Your task to perform on an android device: Toggle the flashlight Image 0: 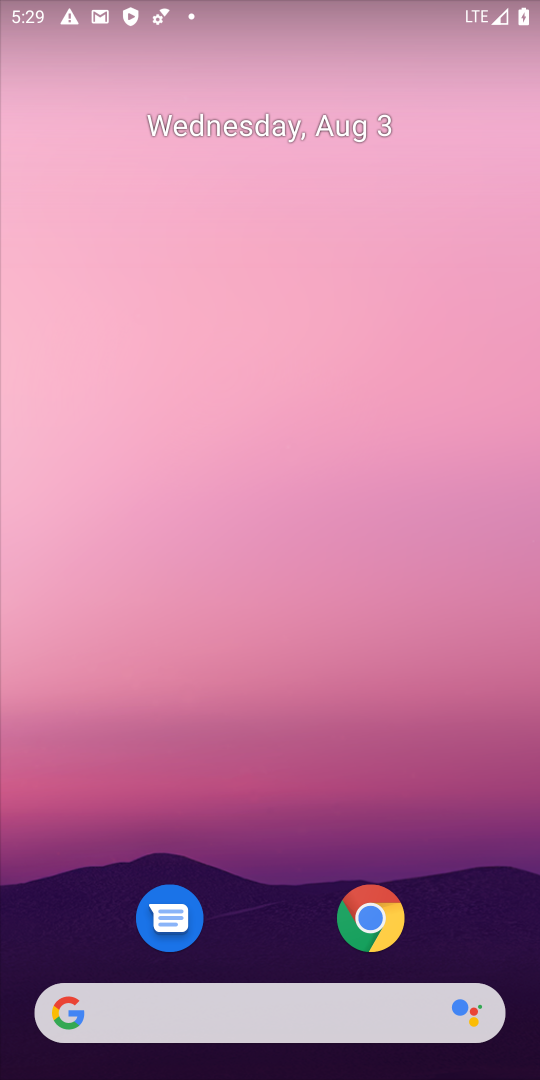
Step 0: drag from (156, 10) to (187, 738)
Your task to perform on an android device: Toggle the flashlight Image 1: 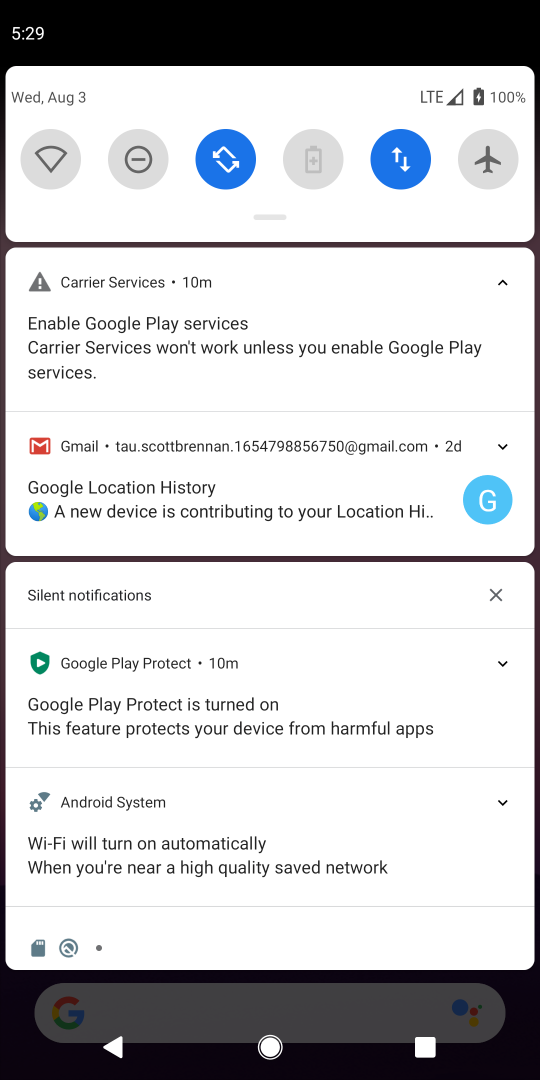
Step 1: task complete